Your task to perform on an android device: change notifications settings Image 0: 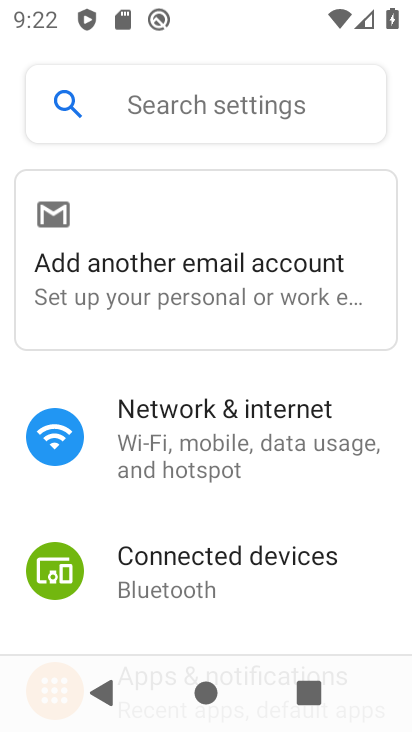
Step 0: drag from (355, 626) to (335, 279)
Your task to perform on an android device: change notifications settings Image 1: 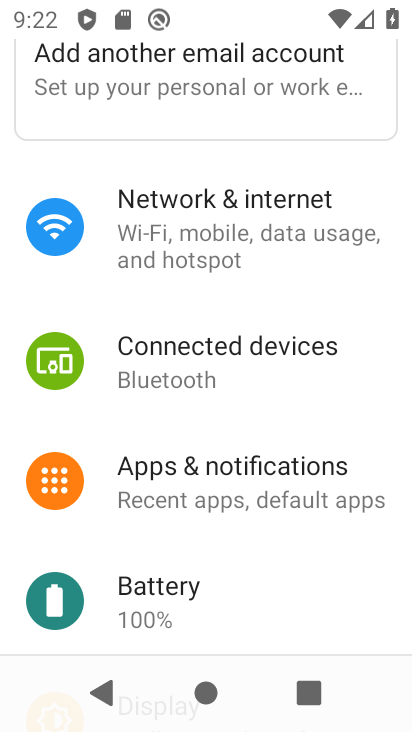
Step 1: click (318, 480)
Your task to perform on an android device: change notifications settings Image 2: 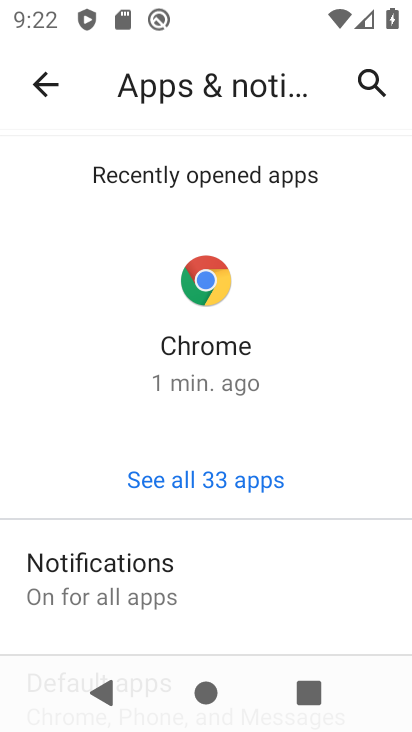
Step 2: drag from (315, 526) to (329, 340)
Your task to perform on an android device: change notifications settings Image 3: 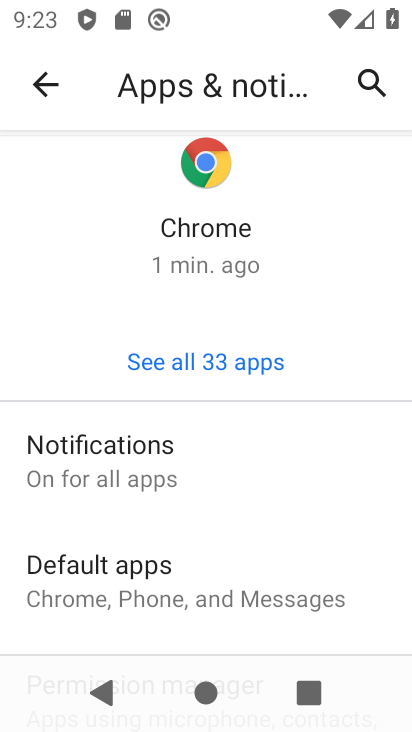
Step 3: click (269, 440)
Your task to perform on an android device: change notifications settings Image 4: 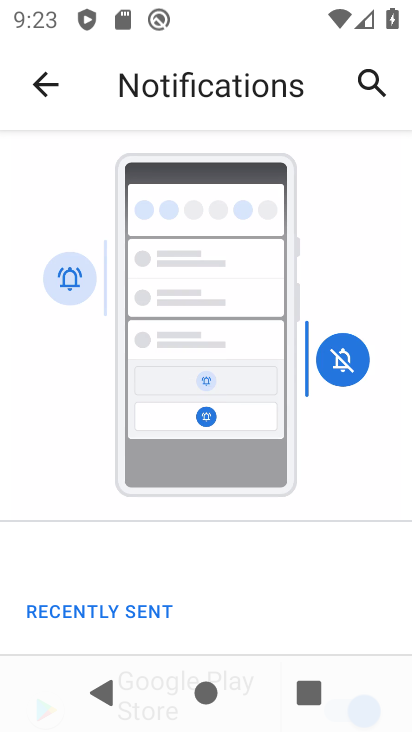
Step 4: drag from (249, 584) to (207, 219)
Your task to perform on an android device: change notifications settings Image 5: 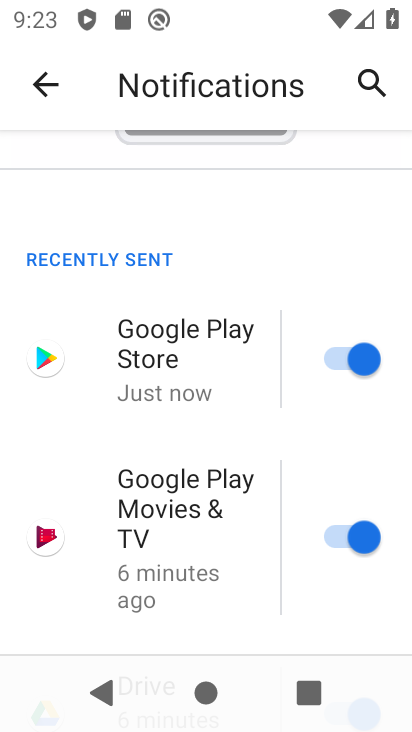
Step 5: drag from (234, 640) to (268, 278)
Your task to perform on an android device: change notifications settings Image 6: 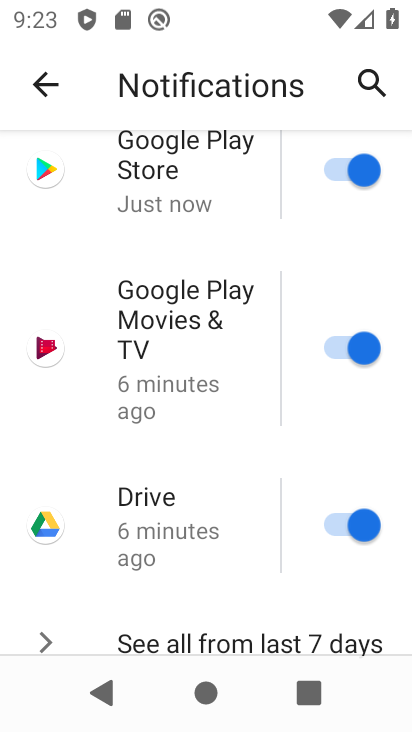
Step 6: drag from (279, 606) to (276, 353)
Your task to perform on an android device: change notifications settings Image 7: 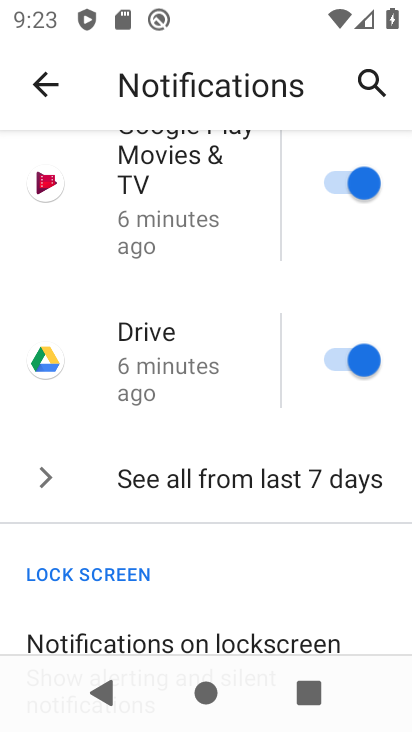
Step 7: drag from (270, 555) to (267, 331)
Your task to perform on an android device: change notifications settings Image 8: 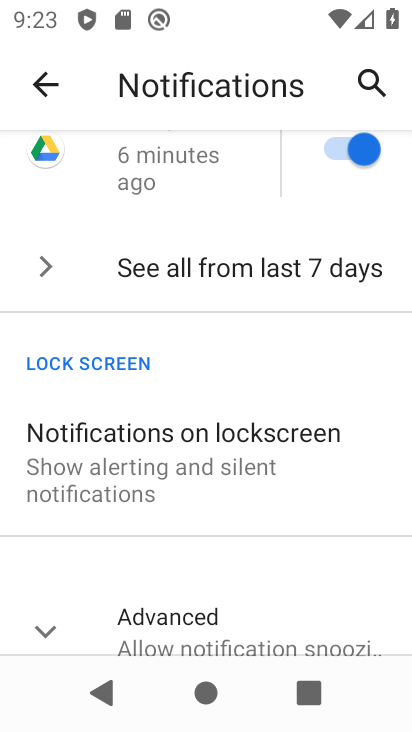
Step 8: click (265, 602)
Your task to perform on an android device: change notifications settings Image 9: 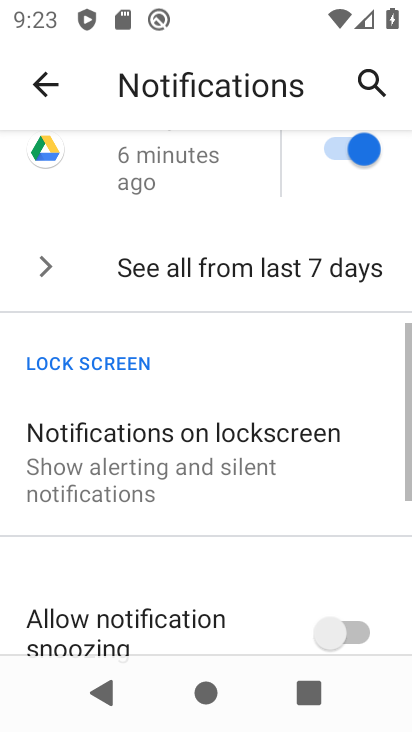
Step 9: drag from (252, 564) to (290, 180)
Your task to perform on an android device: change notifications settings Image 10: 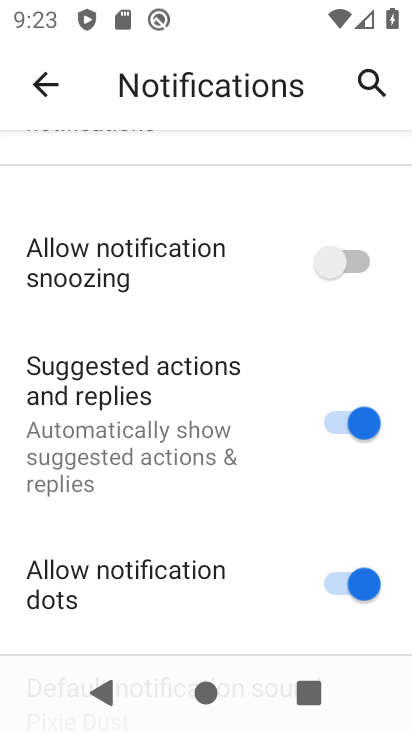
Step 10: click (346, 262)
Your task to perform on an android device: change notifications settings Image 11: 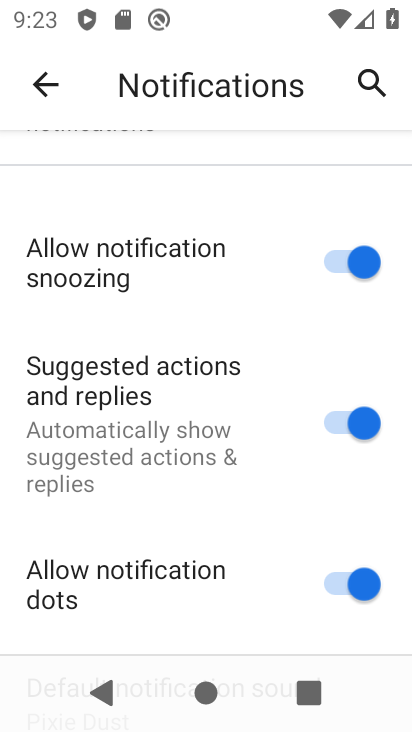
Step 11: click (349, 421)
Your task to perform on an android device: change notifications settings Image 12: 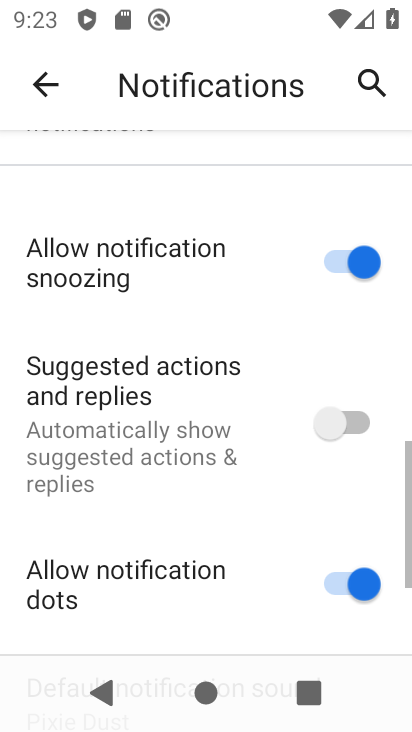
Step 12: click (338, 590)
Your task to perform on an android device: change notifications settings Image 13: 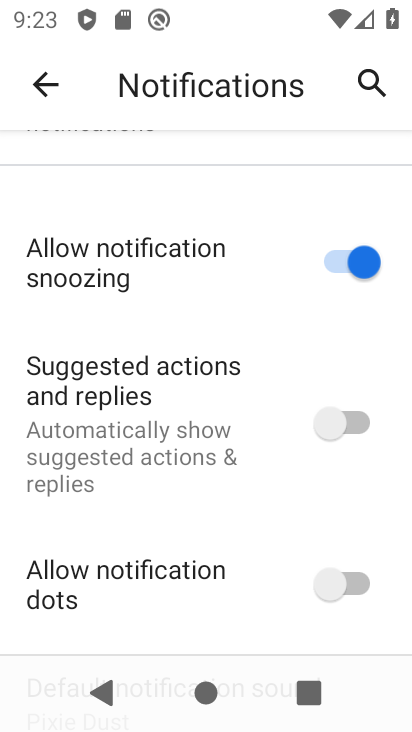
Step 13: task complete